Your task to perform on an android device: toggle javascript in the chrome app Image 0: 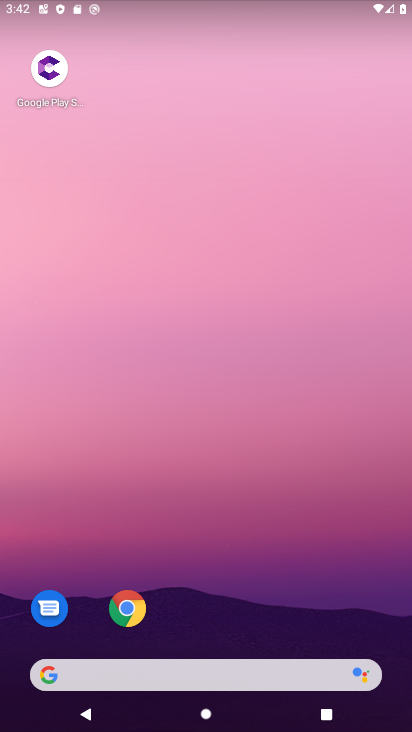
Step 0: drag from (320, 528) to (262, 2)
Your task to perform on an android device: toggle javascript in the chrome app Image 1: 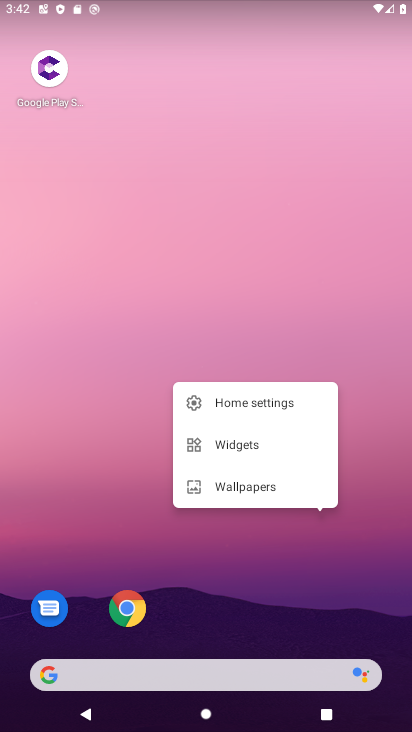
Step 1: drag from (394, 635) to (283, 85)
Your task to perform on an android device: toggle javascript in the chrome app Image 2: 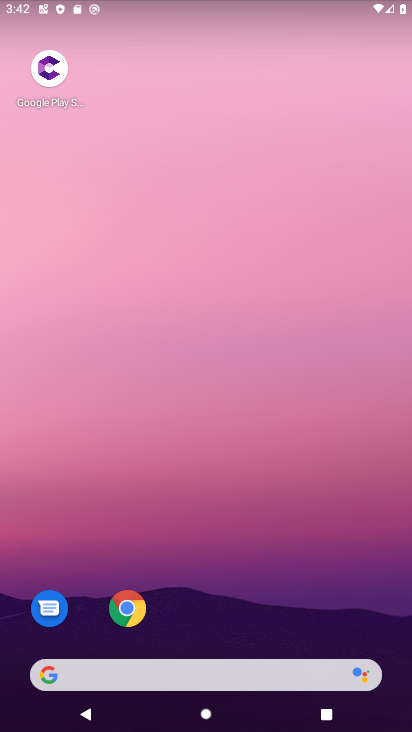
Step 2: click (111, 607)
Your task to perform on an android device: toggle javascript in the chrome app Image 3: 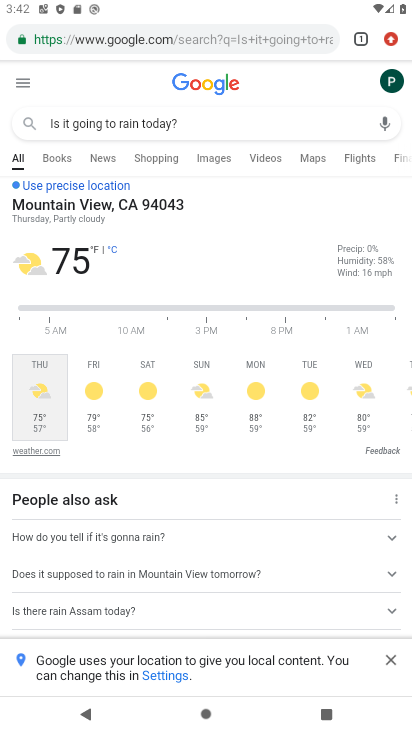
Step 3: click (387, 45)
Your task to perform on an android device: toggle javascript in the chrome app Image 4: 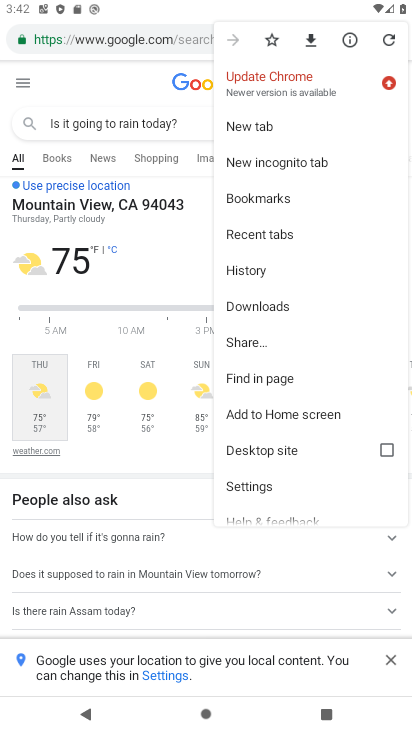
Step 4: click (258, 487)
Your task to perform on an android device: toggle javascript in the chrome app Image 5: 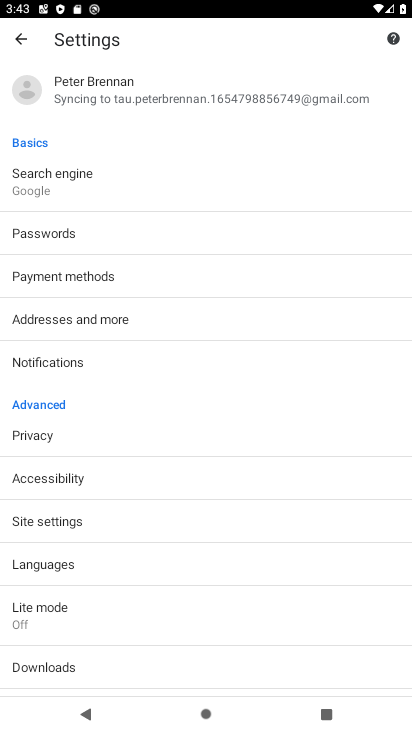
Step 5: click (92, 522)
Your task to perform on an android device: toggle javascript in the chrome app Image 6: 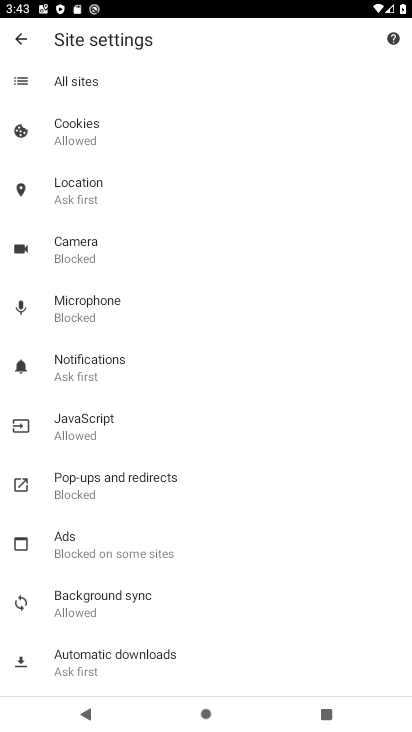
Step 6: click (102, 421)
Your task to perform on an android device: toggle javascript in the chrome app Image 7: 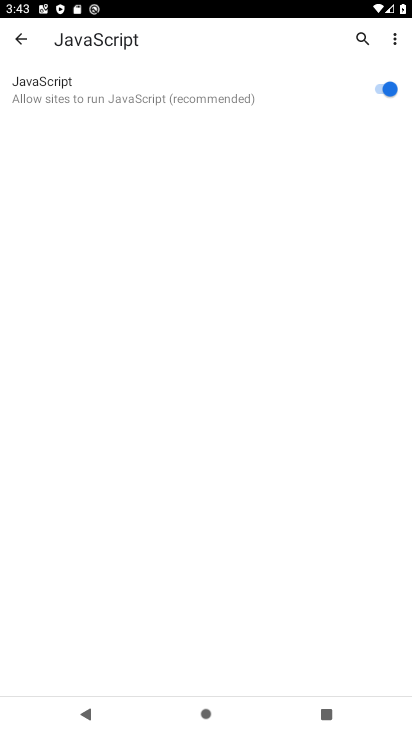
Step 7: click (385, 89)
Your task to perform on an android device: toggle javascript in the chrome app Image 8: 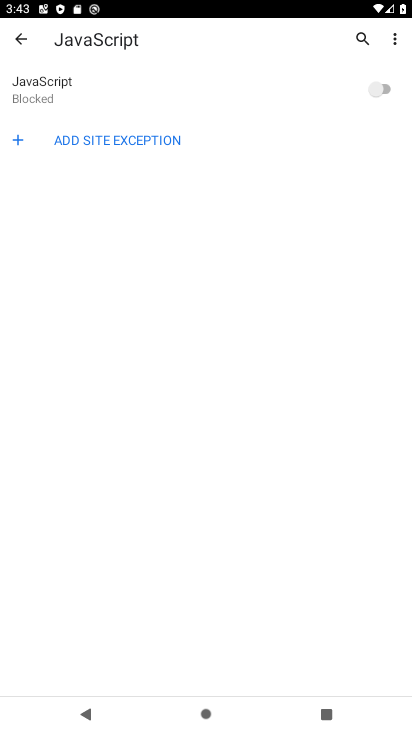
Step 8: task complete